Your task to perform on an android device: add a contact Image 0: 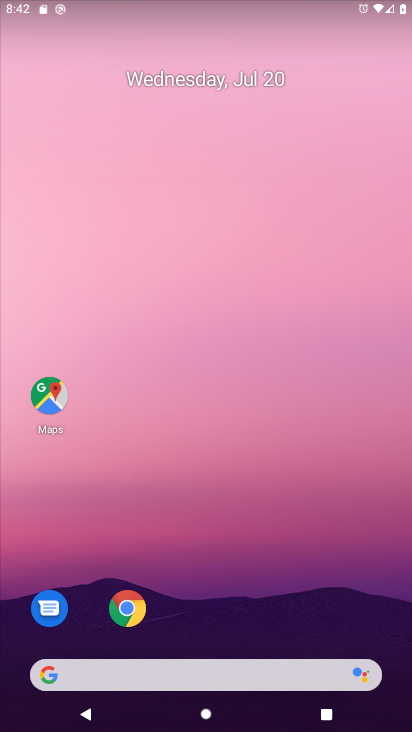
Step 0: drag from (211, 605) to (206, 191)
Your task to perform on an android device: add a contact Image 1: 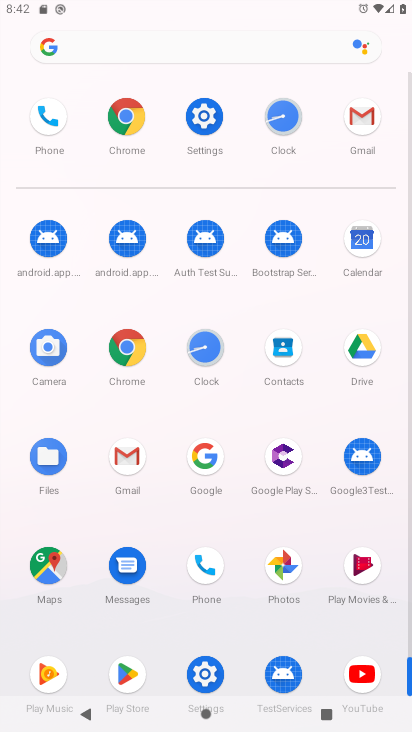
Step 1: click (49, 116)
Your task to perform on an android device: add a contact Image 2: 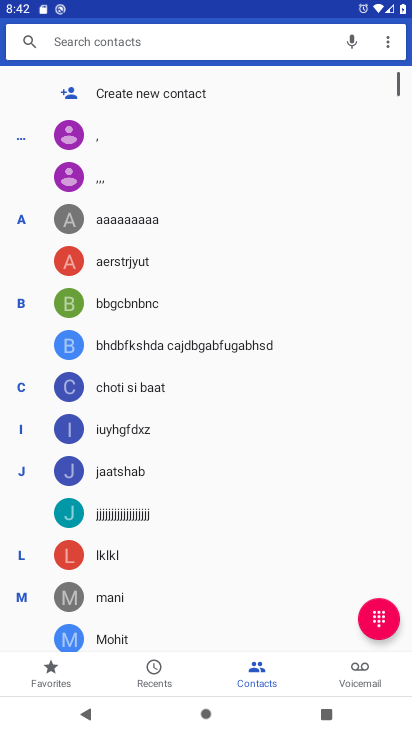
Step 2: click (160, 96)
Your task to perform on an android device: add a contact Image 3: 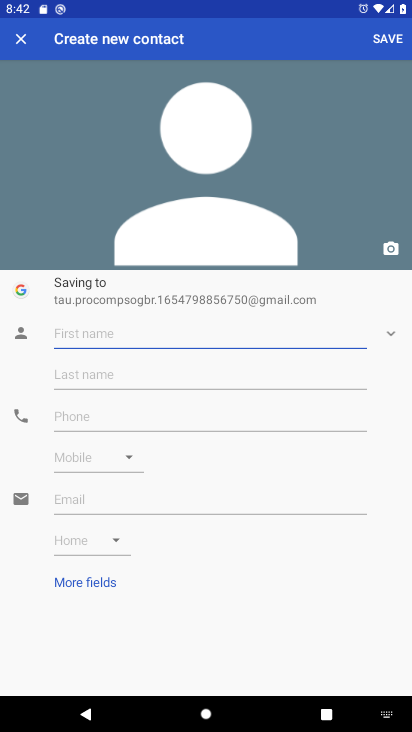
Step 3: click (150, 333)
Your task to perform on an android device: add a contact Image 4: 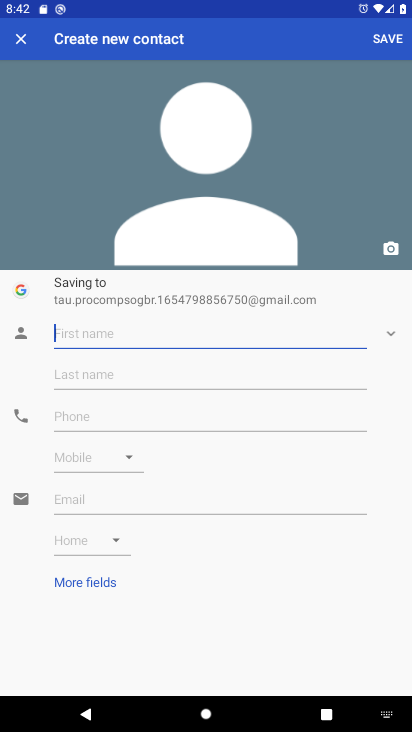
Step 4: type "hghghghghhgghghgfddd "
Your task to perform on an android device: add a contact Image 5: 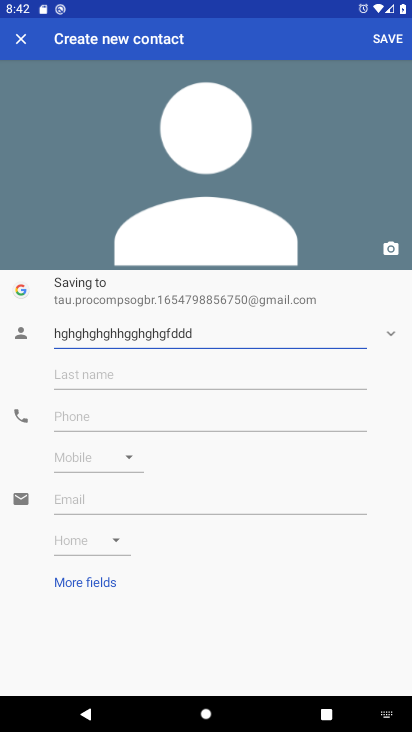
Step 5: click (93, 409)
Your task to perform on an android device: add a contact Image 6: 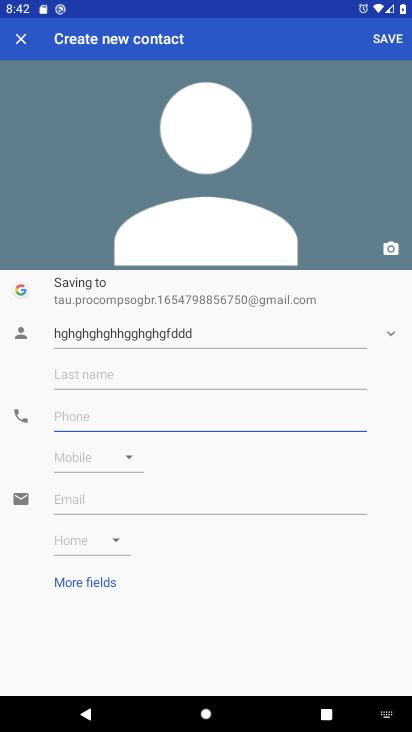
Step 6: type "1234567890 "
Your task to perform on an android device: add a contact Image 7: 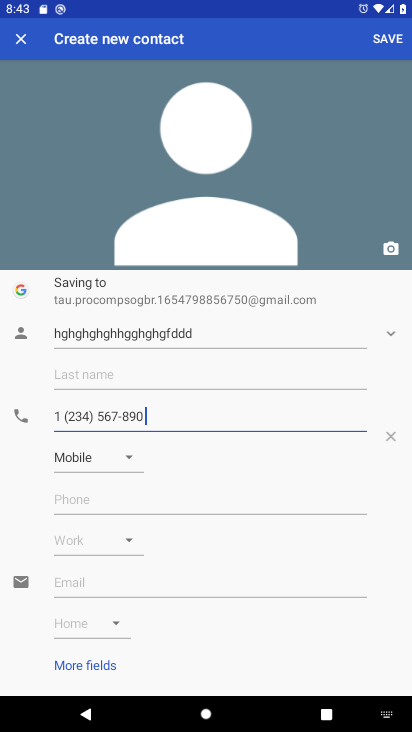
Step 7: click (382, 31)
Your task to perform on an android device: add a contact Image 8: 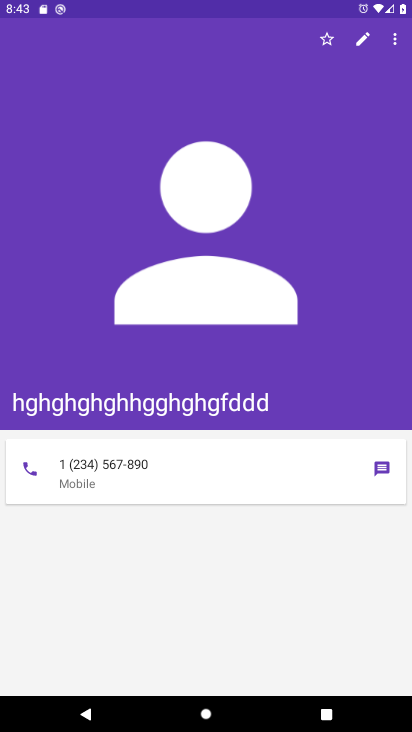
Step 8: task complete